Your task to perform on an android device: Open sound settings Image 0: 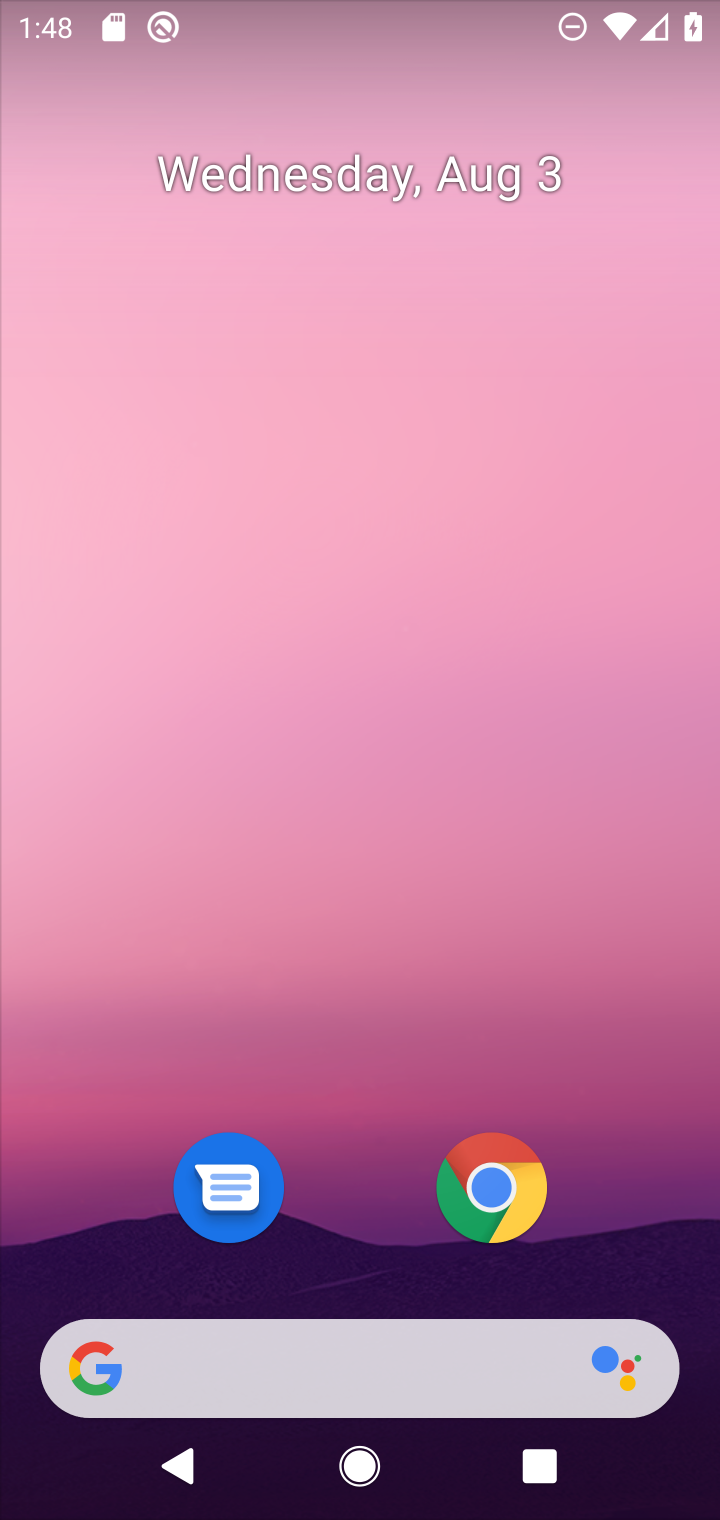
Step 0: drag from (338, 875) to (348, 2)
Your task to perform on an android device: Open sound settings Image 1: 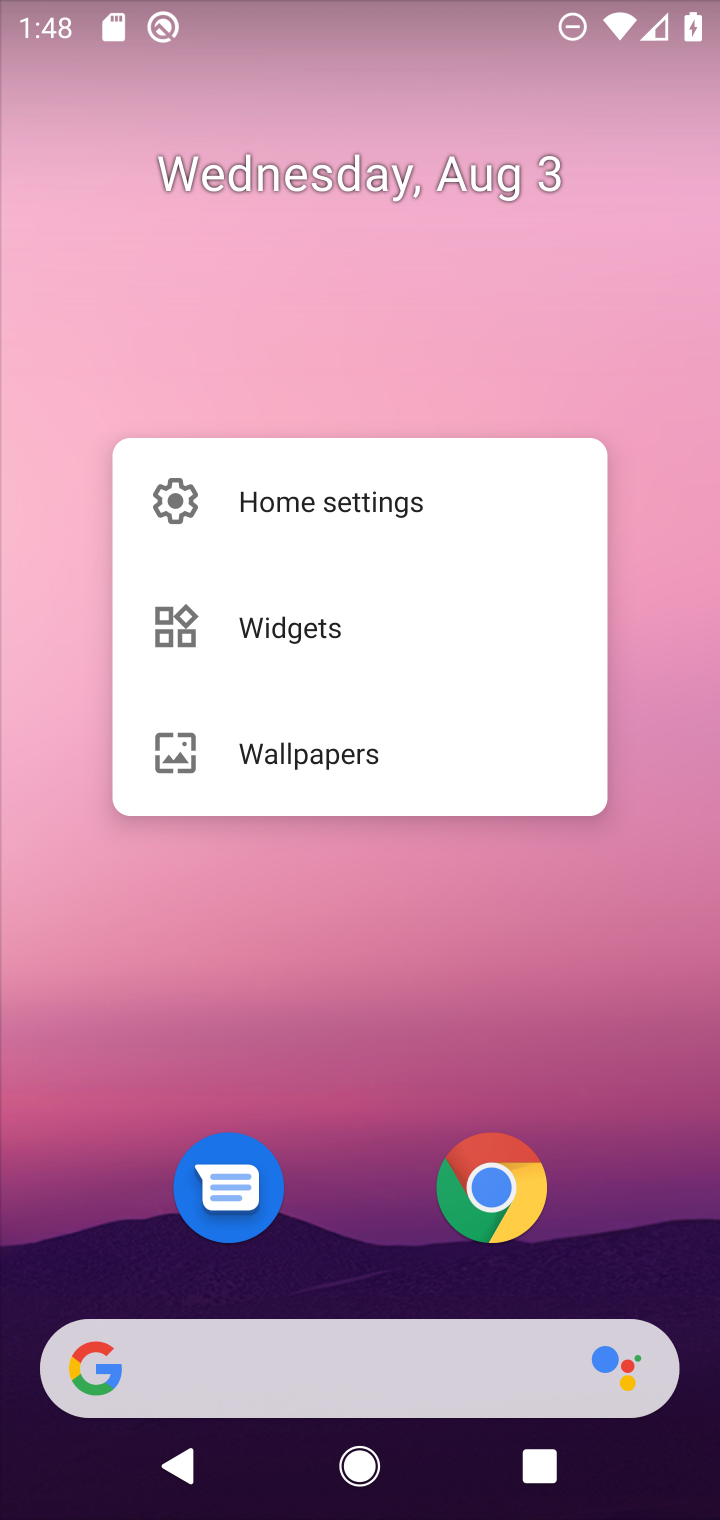
Step 1: click (534, 959)
Your task to perform on an android device: Open sound settings Image 2: 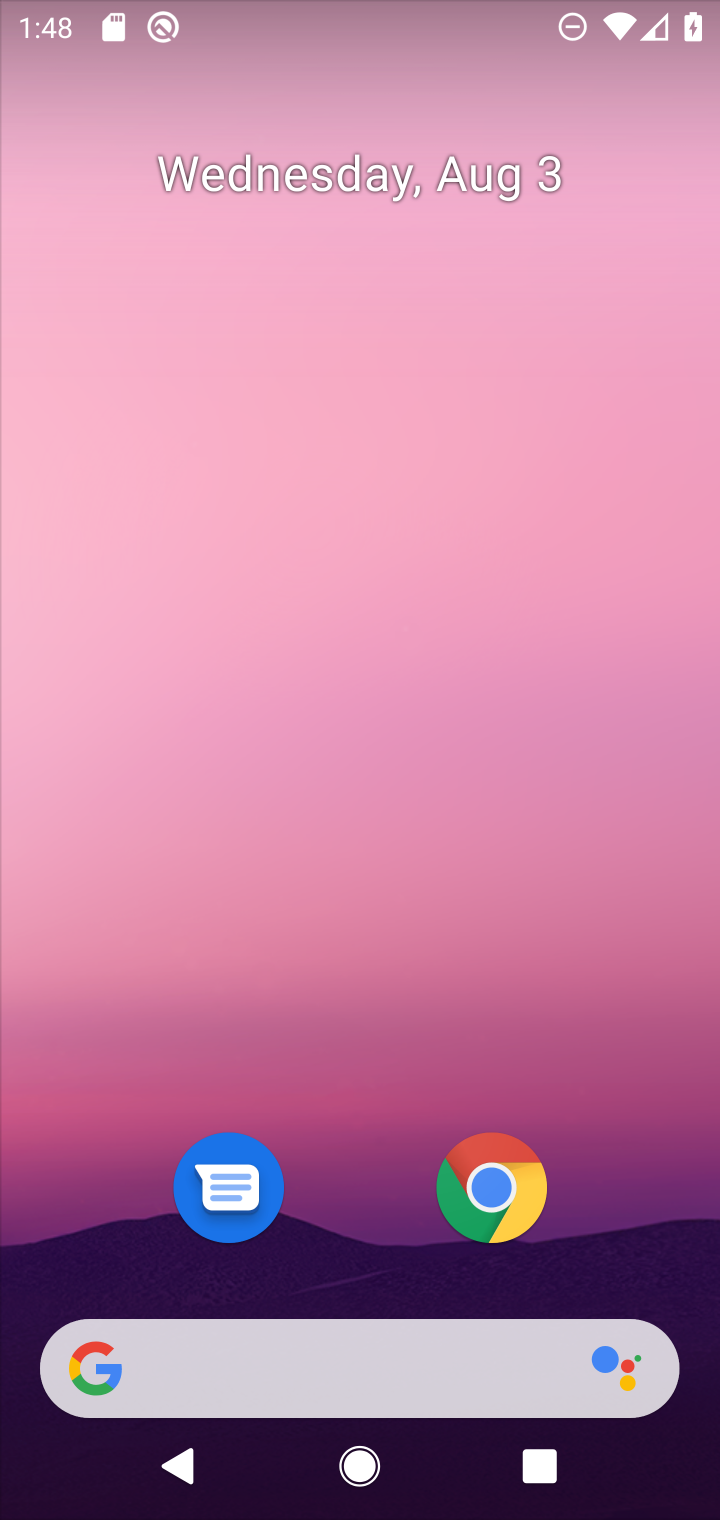
Step 2: drag from (364, 1184) to (462, 93)
Your task to perform on an android device: Open sound settings Image 3: 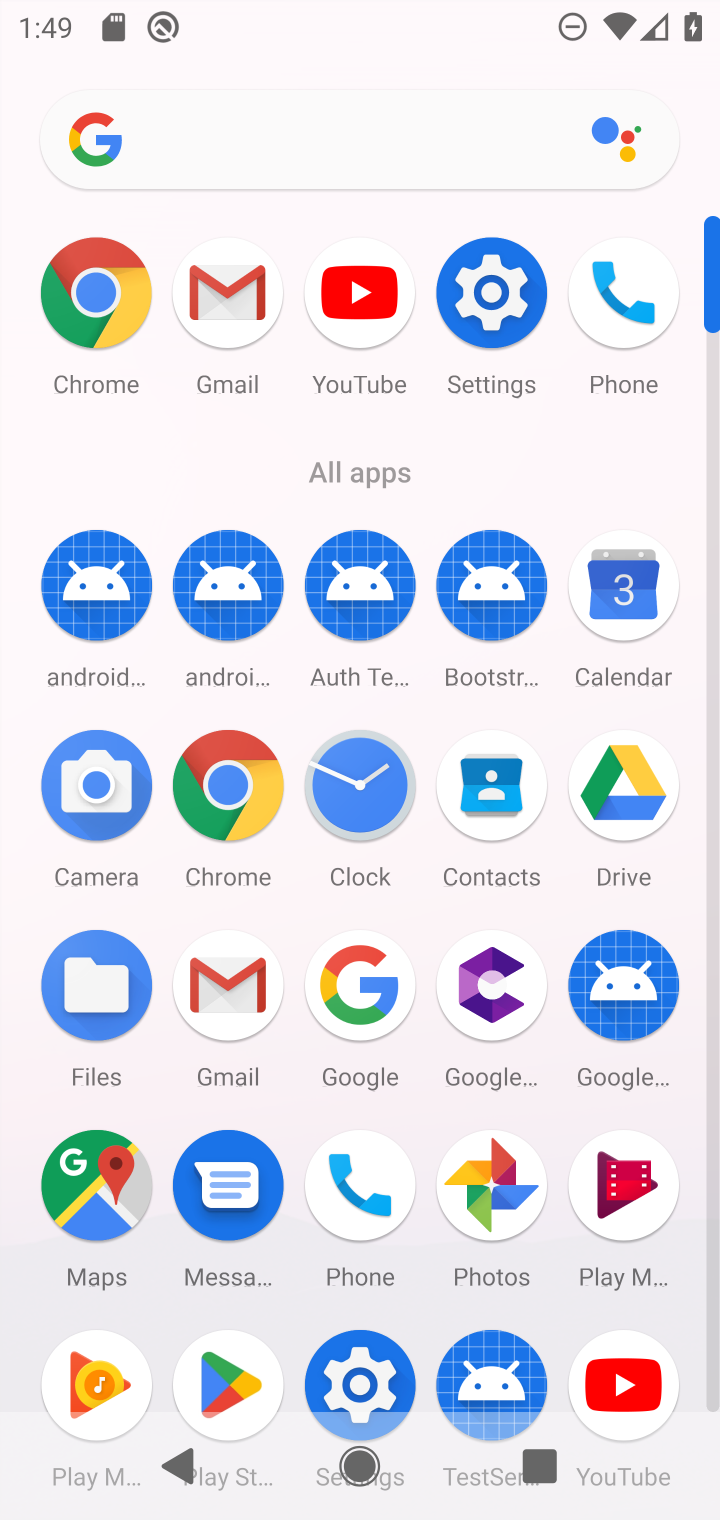
Step 3: click (481, 282)
Your task to perform on an android device: Open sound settings Image 4: 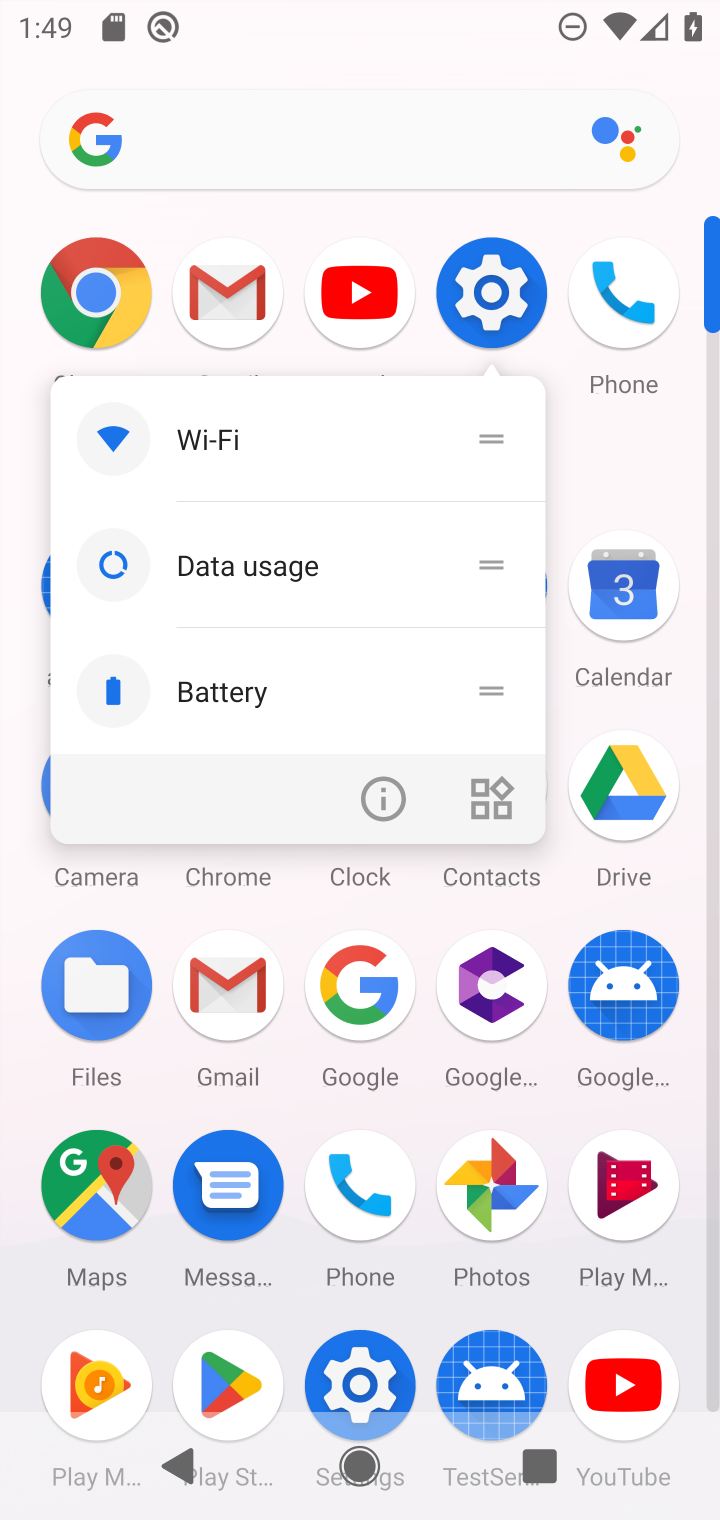
Step 4: click (481, 282)
Your task to perform on an android device: Open sound settings Image 5: 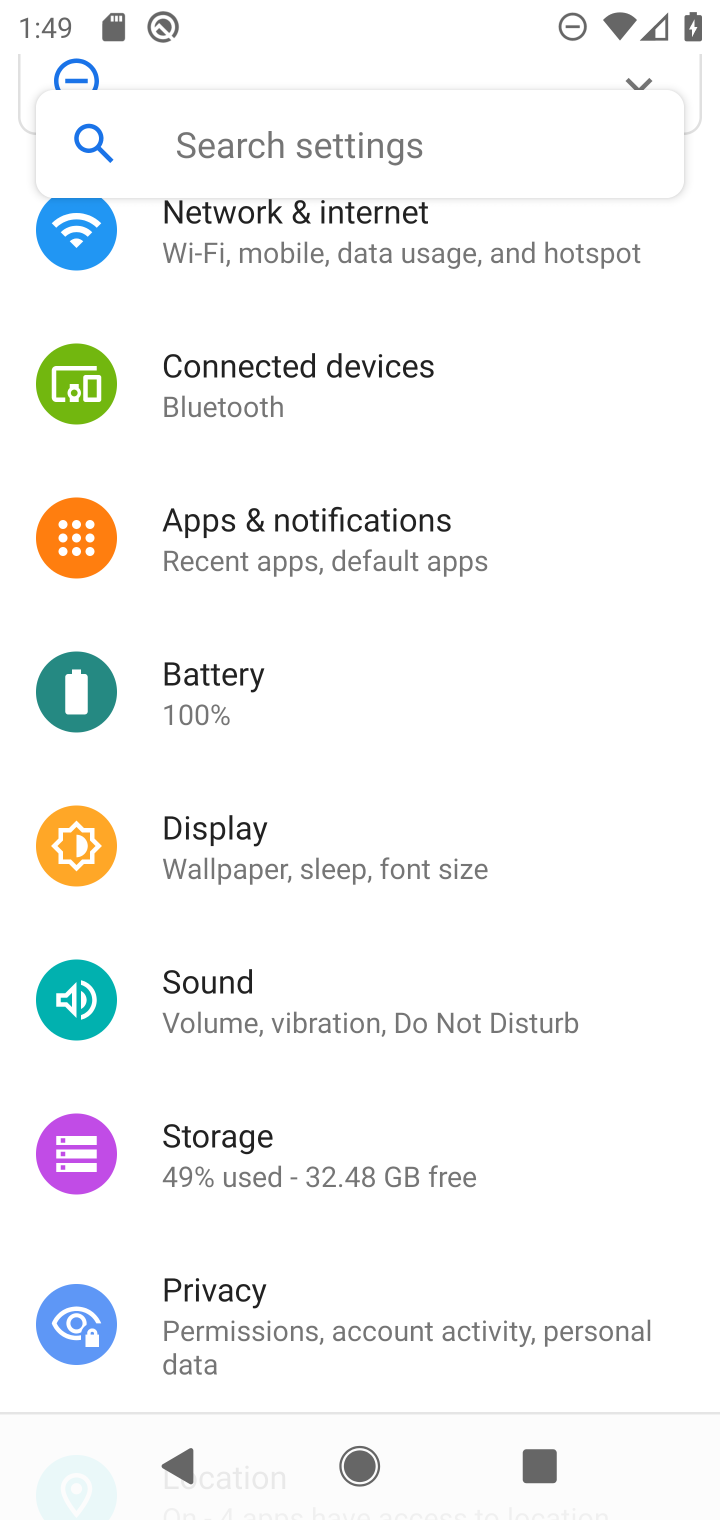
Step 5: click (328, 986)
Your task to perform on an android device: Open sound settings Image 6: 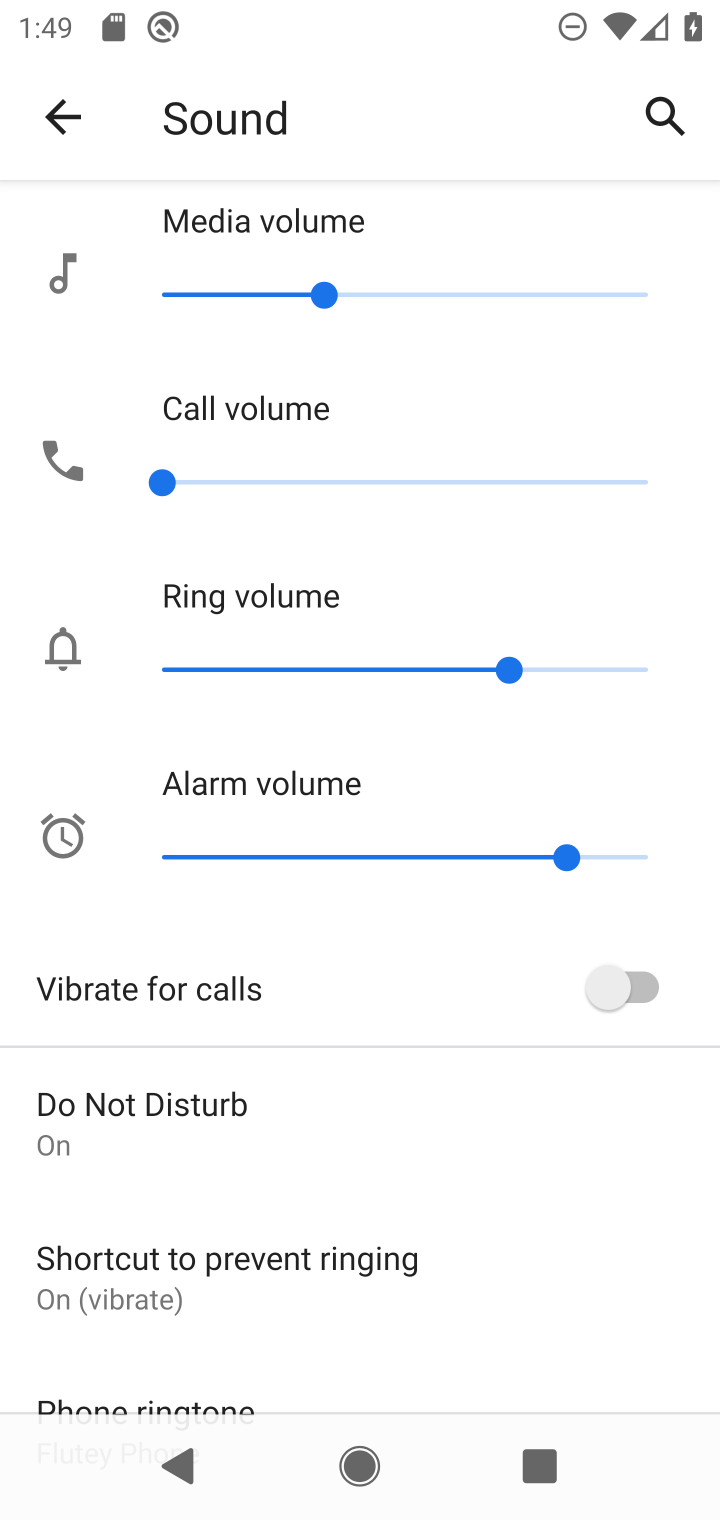
Step 6: task complete